Your task to perform on an android device: turn off improve location accuracy Image 0: 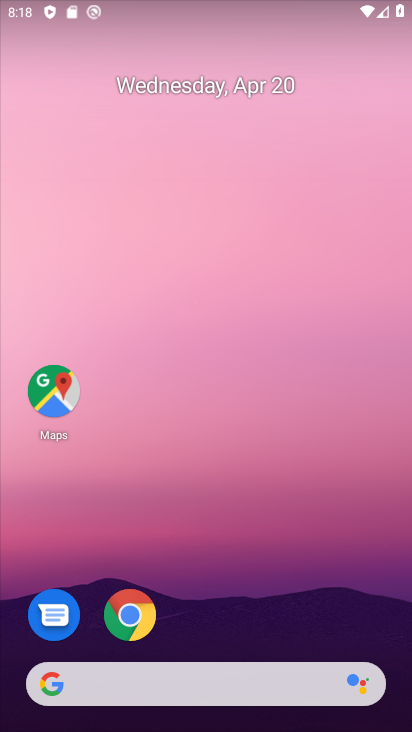
Step 0: drag from (306, 623) to (275, 3)
Your task to perform on an android device: turn off improve location accuracy Image 1: 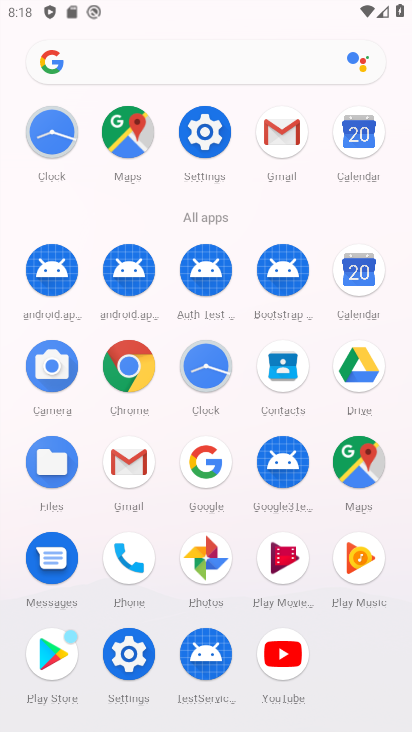
Step 1: click (198, 145)
Your task to perform on an android device: turn off improve location accuracy Image 2: 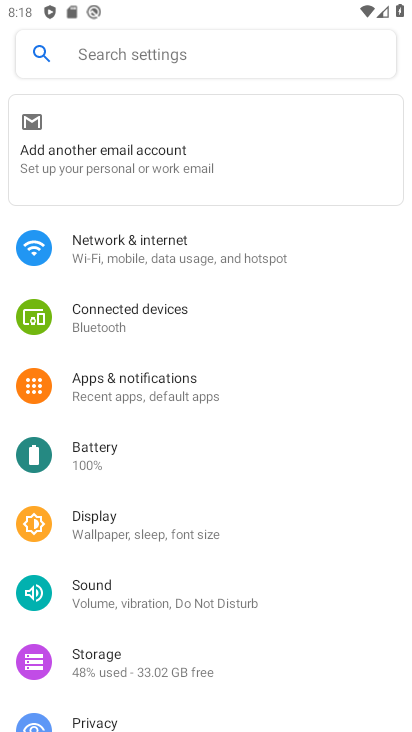
Step 2: drag from (231, 690) to (249, 186)
Your task to perform on an android device: turn off improve location accuracy Image 3: 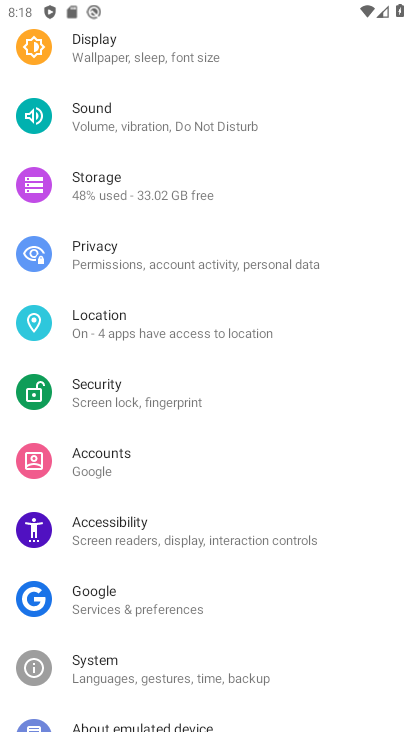
Step 3: click (197, 315)
Your task to perform on an android device: turn off improve location accuracy Image 4: 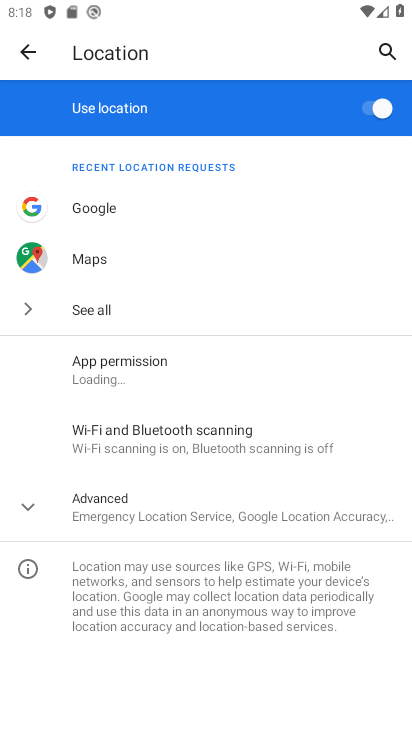
Step 4: click (242, 520)
Your task to perform on an android device: turn off improve location accuracy Image 5: 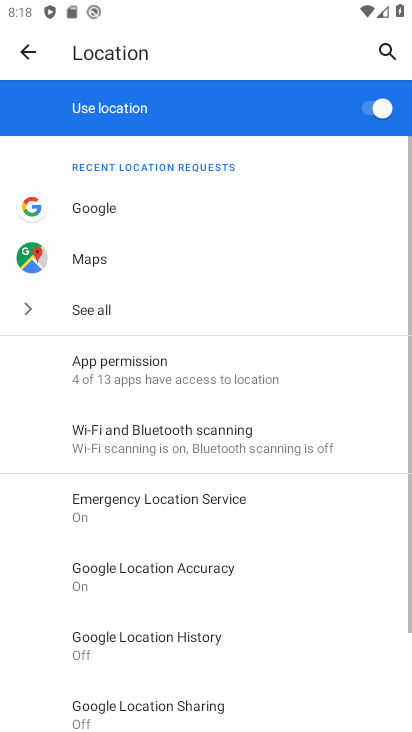
Step 5: drag from (295, 632) to (389, 342)
Your task to perform on an android device: turn off improve location accuracy Image 6: 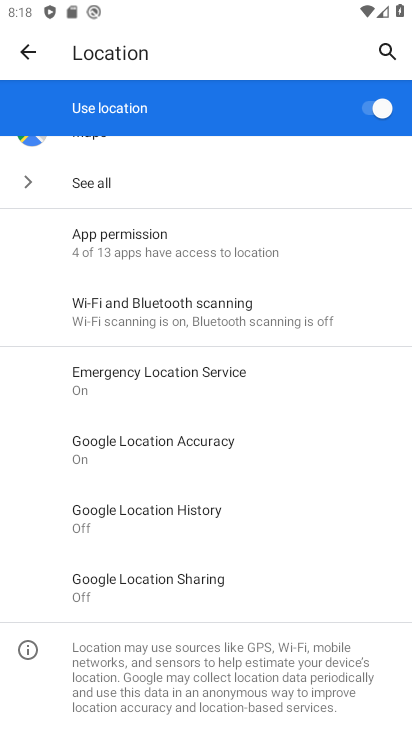
Step 6: click (250, 442)
Your task to perform on an android device: turn off improve location accuracy Image 7: 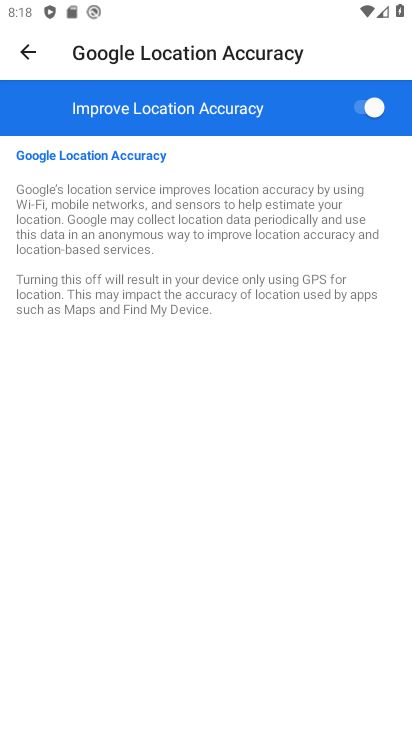
Step 7: click (361, 102)
Your task to perform on an android device: turn off improve location accuracy Image 8: 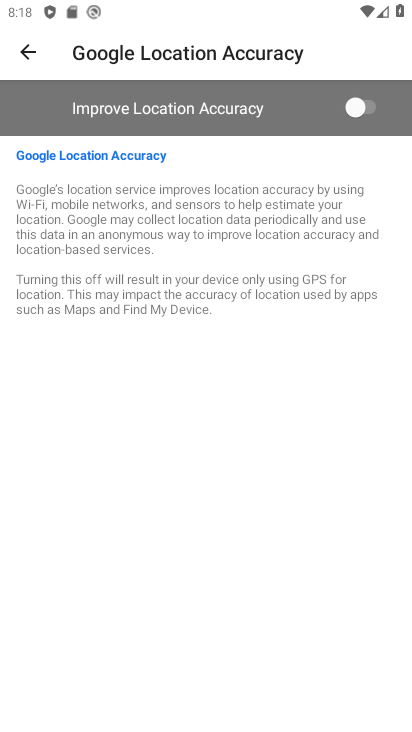
Step 8: task complete